Your task to perform on an android device: clear all cookies in the chrome app Image 0: 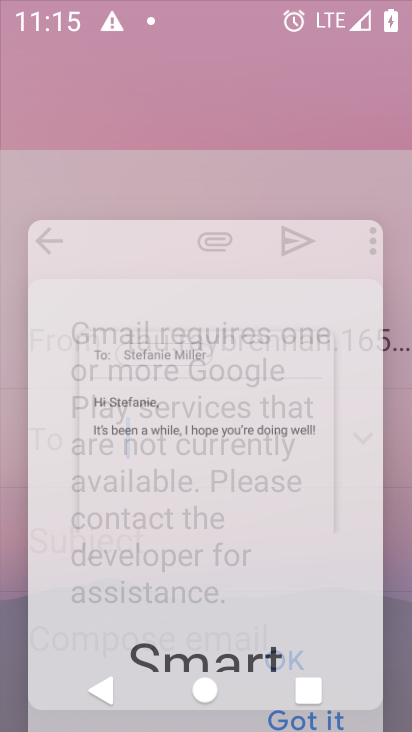
Step 0: drag from (192, 496) to (118, 176)
Your task to perform on an android device: clear all cookies in the chrome app Image 1: 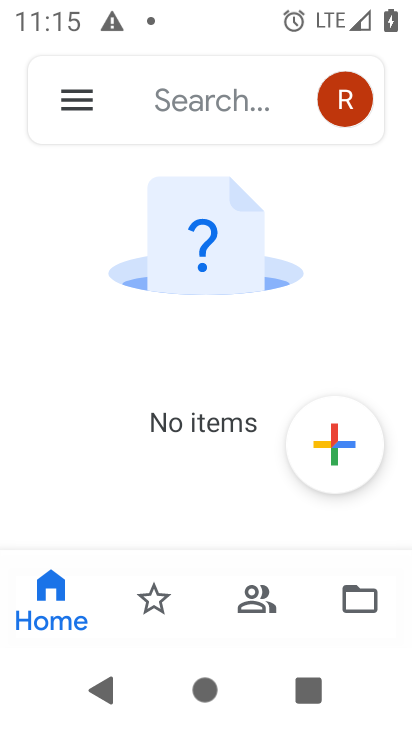
Step 1: press home button
Your task to perform on an android device: clear all cookies in the chrome app Image 2: 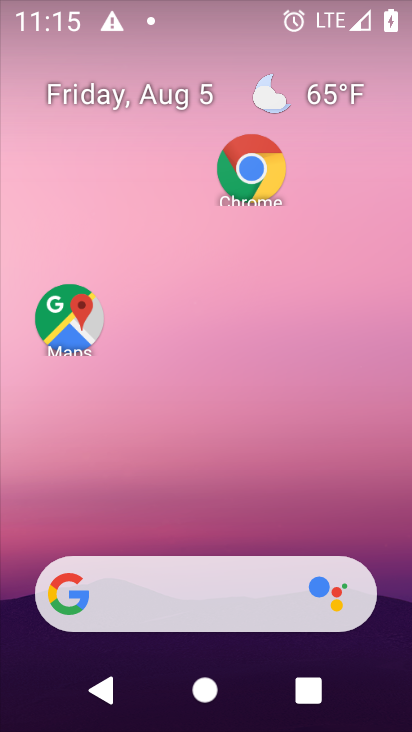
Step 2: click (243, 179)
Your task to perform on an android device: clear all cookies in the chrome app Image 3: 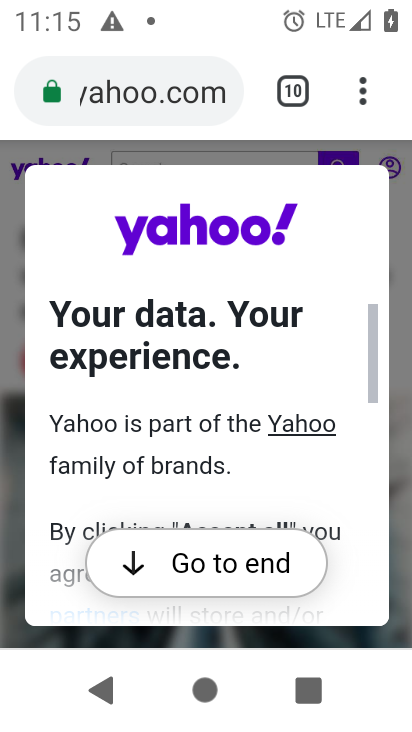
Step 3: click (366, 89)
Your task to perform on an android device: clear all cookies in the chrome app Image 4: 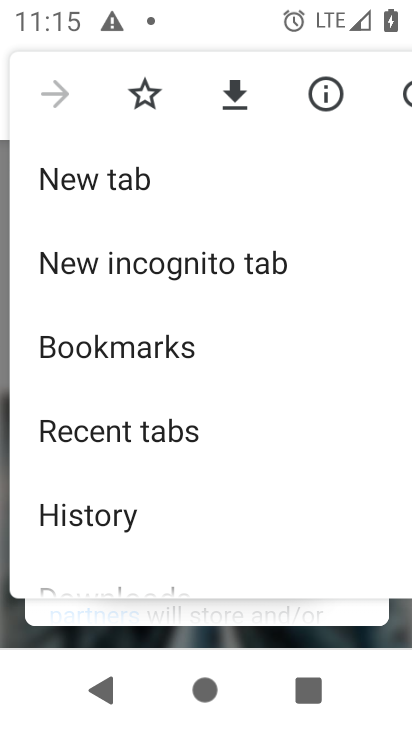
Step 4: drag from (200, 517) to (213, 191)
Your task to perform on an android device: clear all cookies in the chrome app Image 5: 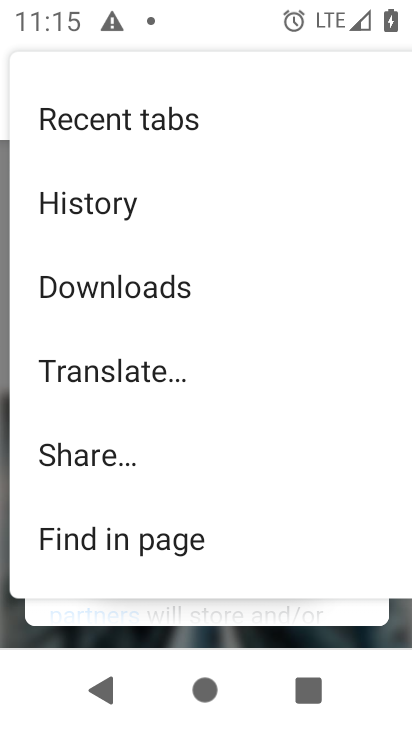
Step 5: click (109, 210)
Your task to perform on an android device: clear all cookies in the chrome app Image 6: 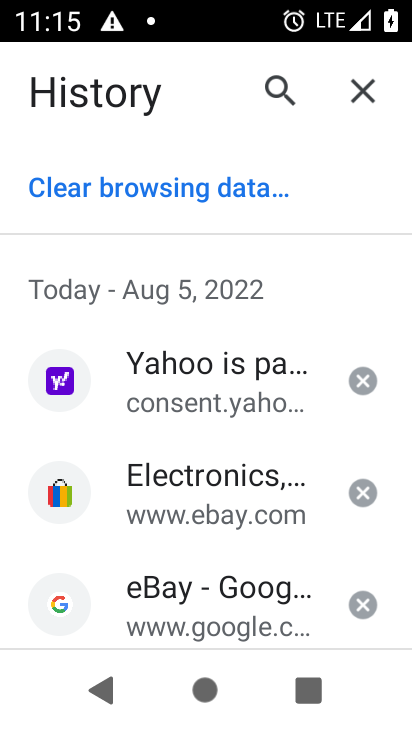
Step 6: click (137, 199)
Your task to perform on an android device: clear all cookies in the chrome app Image 7: 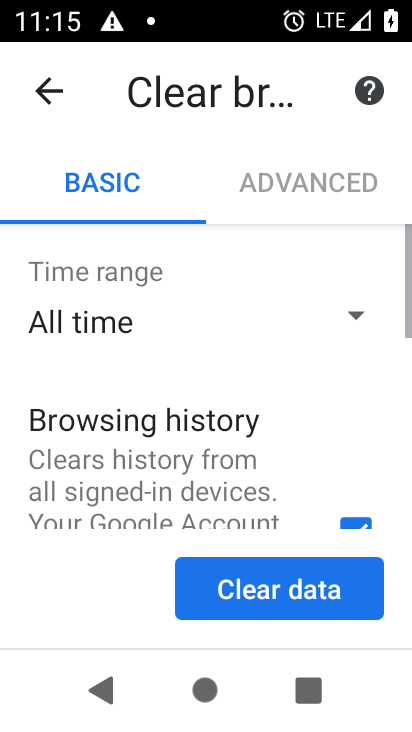
Step 7: drag from (216, 503) to (210, 181)
Your task to perform on an android device: clear all cookies in the chrome app Image 8: 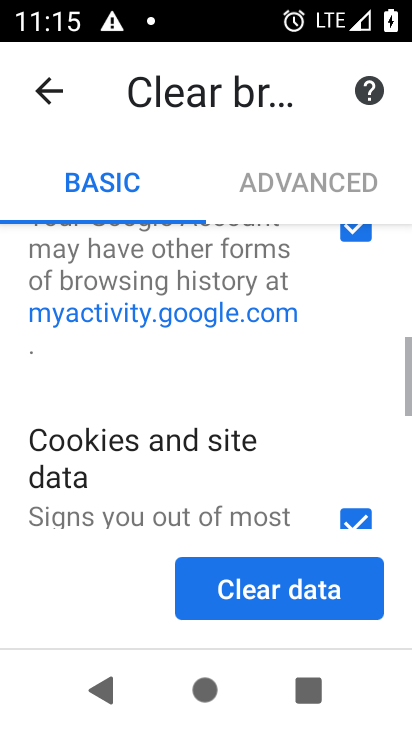
Step 8: drag from (210, 415) to (219, 217)
Your task to perform on an android device: clear all cookies in the chrome app Image 9: 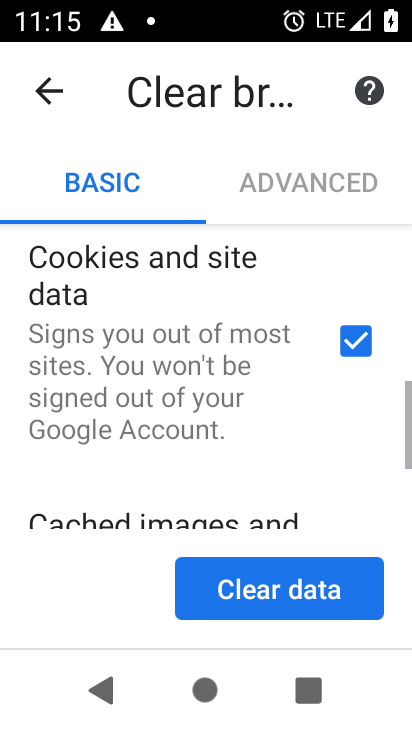
Step 9: drag from (237, 451) to (245, 255)
Your task to perform on an android device: clear all cookies in the chrome app Image 10: 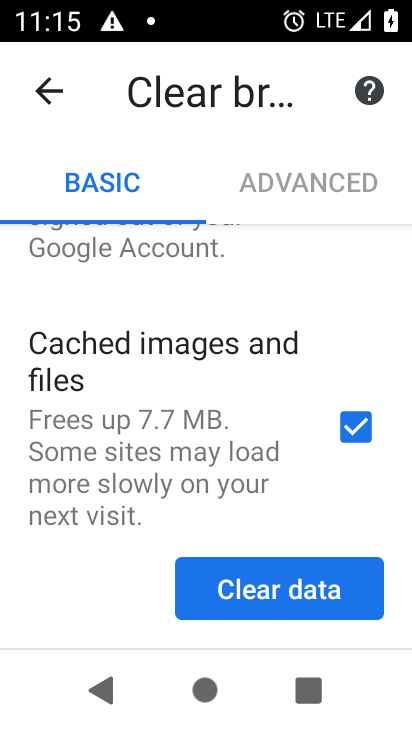
Step 10: click (272, 582)
Your task to perform on an android device: clear all cookies in the chrome app Image 11: 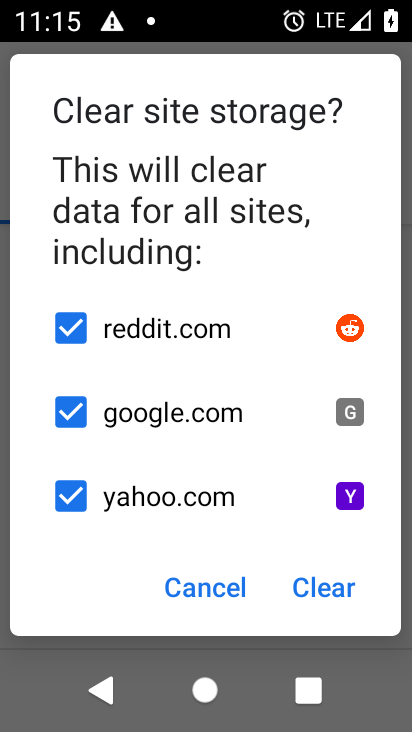
Step 11: click (325, 584)
Your task to perform on an android device: clear all cookies in the chrome app Image 12: 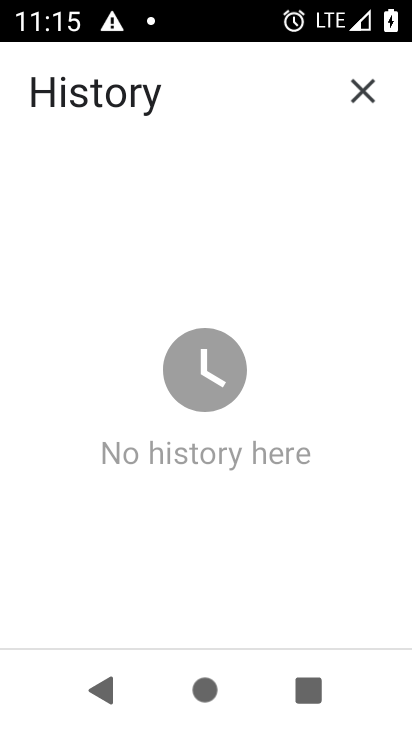
Step 12: task complete